Your task to perform on an android device: uninstall "HBO Max: Stream TV & Movies" Image 0: 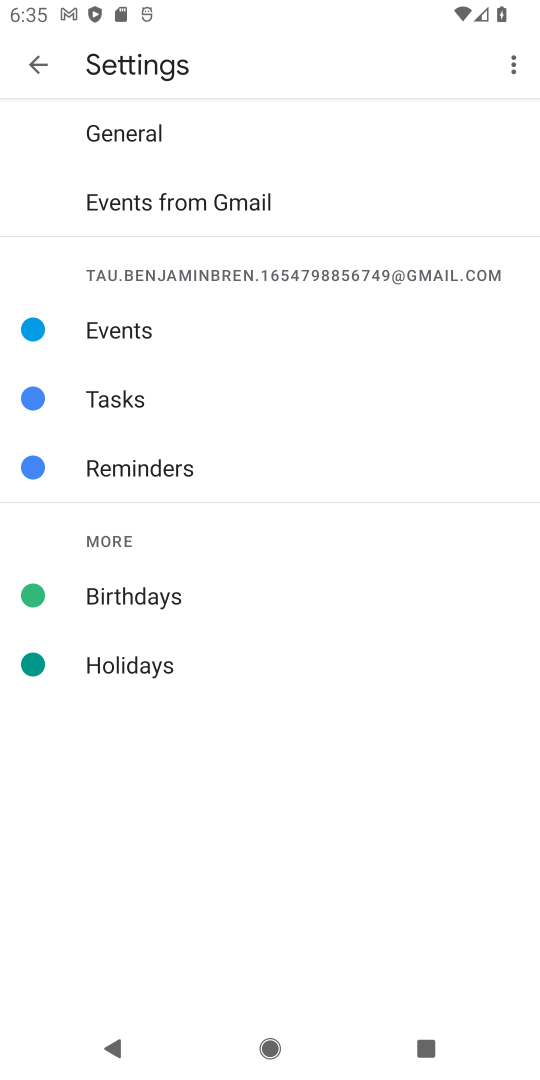
Step 0: drag from (321, 816) to (355, 428)
Your task to perform on an android device: uninstall "HBO Max: Stream TV & Movies" Image 1: 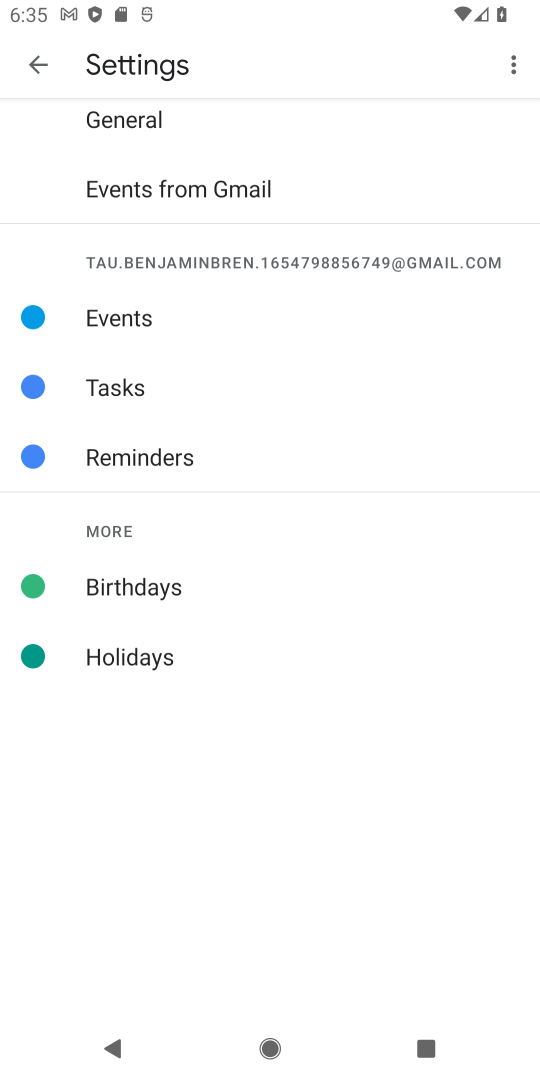
Step 1: drag from (306, 538) to (371, 781)
Your task to perform on an android device: uninstall "HBO Max: Stream TV & Movies" Image 2: 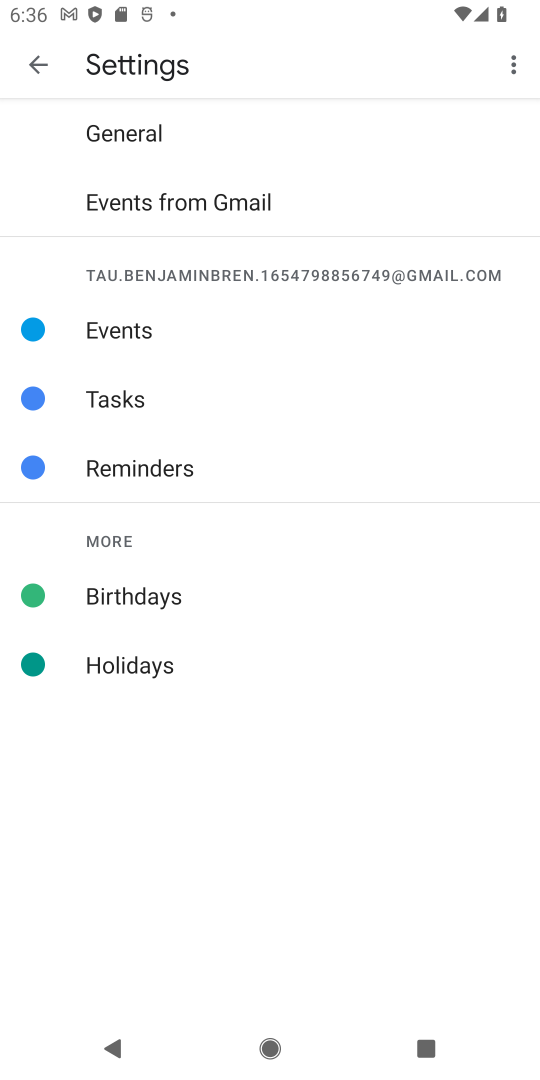
Step 2: press home button
Your task to perform on an android device: uninstall "HBO Max: Stream TV & Movies" Image 3: 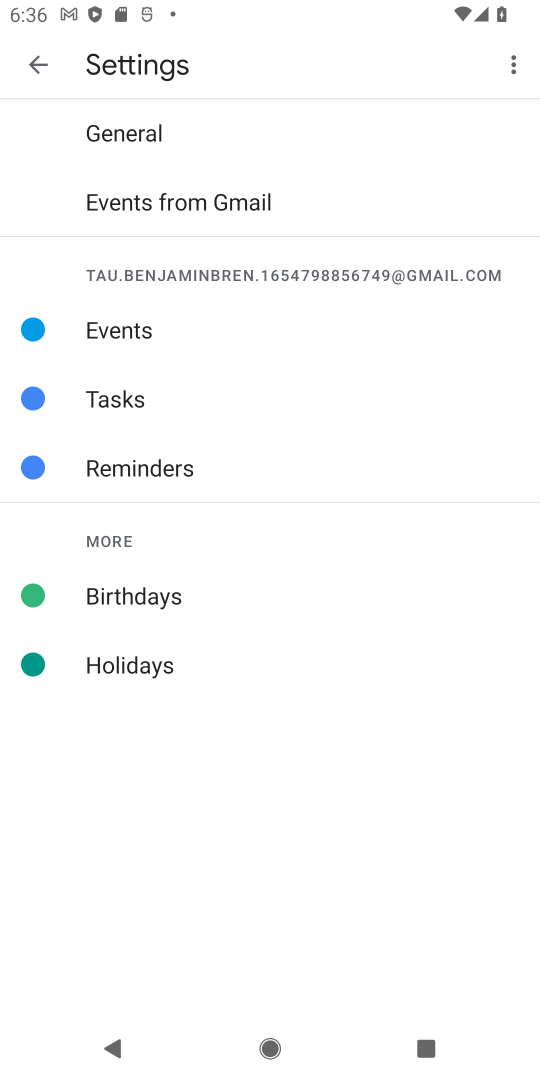
Step 3: press home button
Your task to perform on an android device: uninstall "HBO Max: Stream TV & Movies" Image 4: 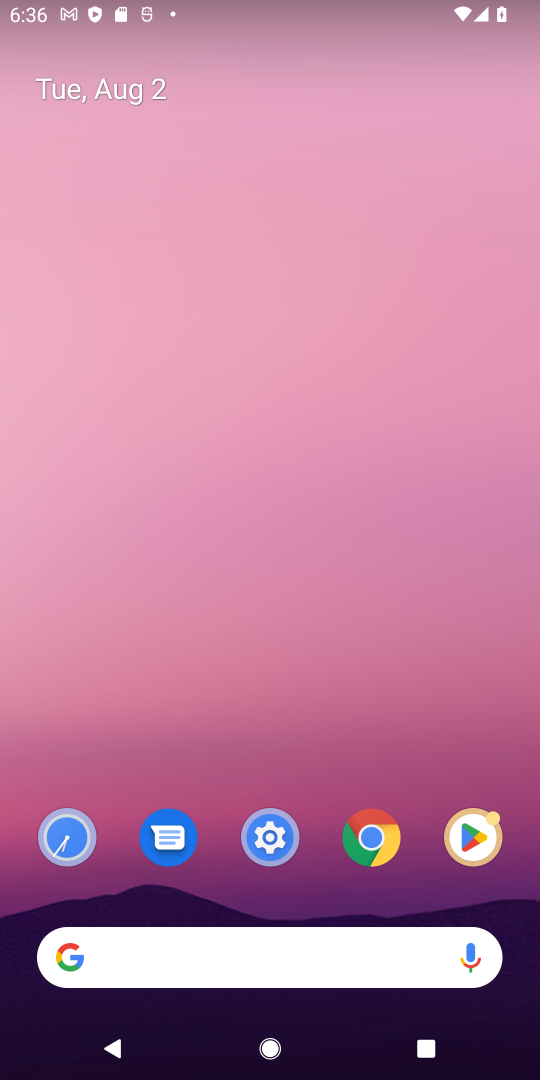
Step 4: drag from (227, 832) to (261, 198)
Your task to perform on an android device: uninstall "HBO Max: Stream TV & Movies" Image 5: 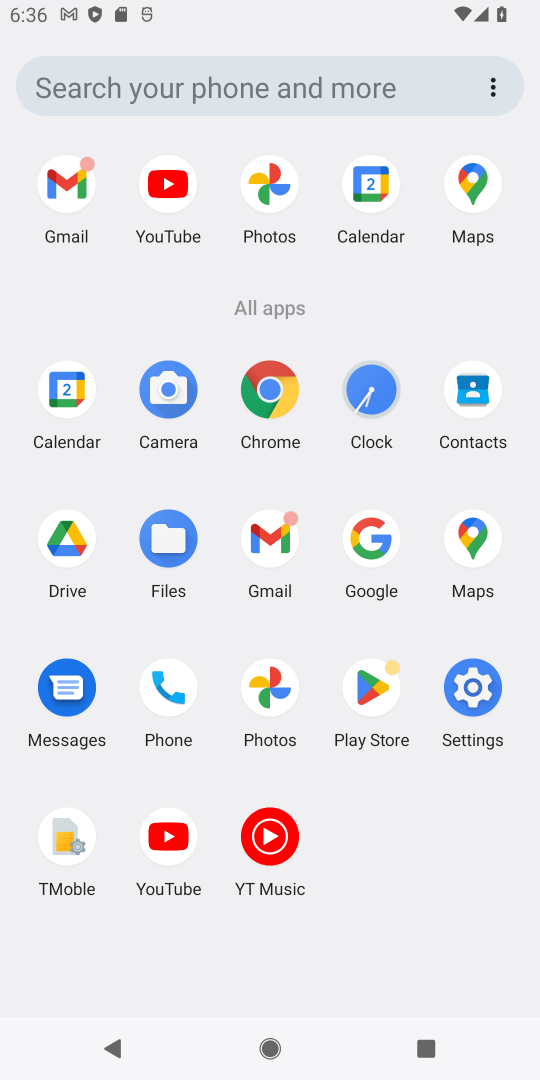
Step 5: click (371, 687)
Your task to perform on an android device: uninstall "HBO Max: Stream TV & Movies" Image 6: 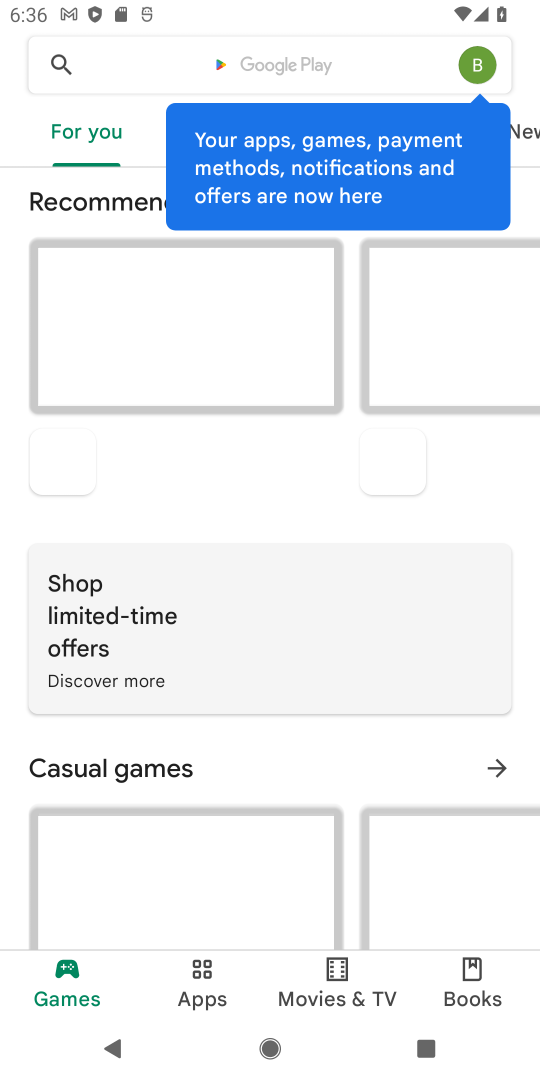
Step 6: click (213, 61)
Your task to perform on an android device: uninstall "HBO Max: Stream TV & Movies" Image 7: 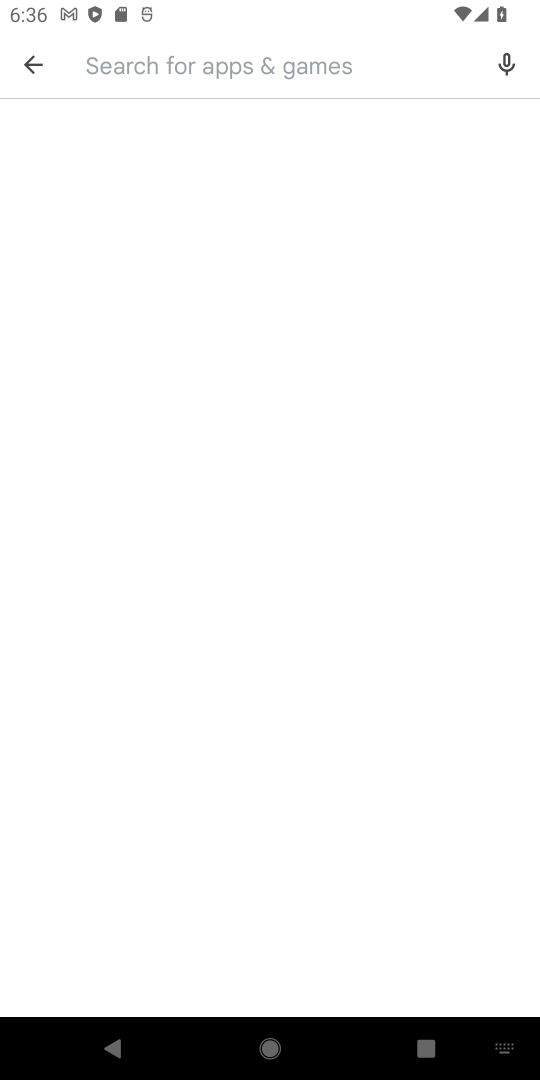
Step 7: click (245, 71)
Your task to perform on an android device: uninstall "HBO Max: Stream TV & Movies" Image 8: 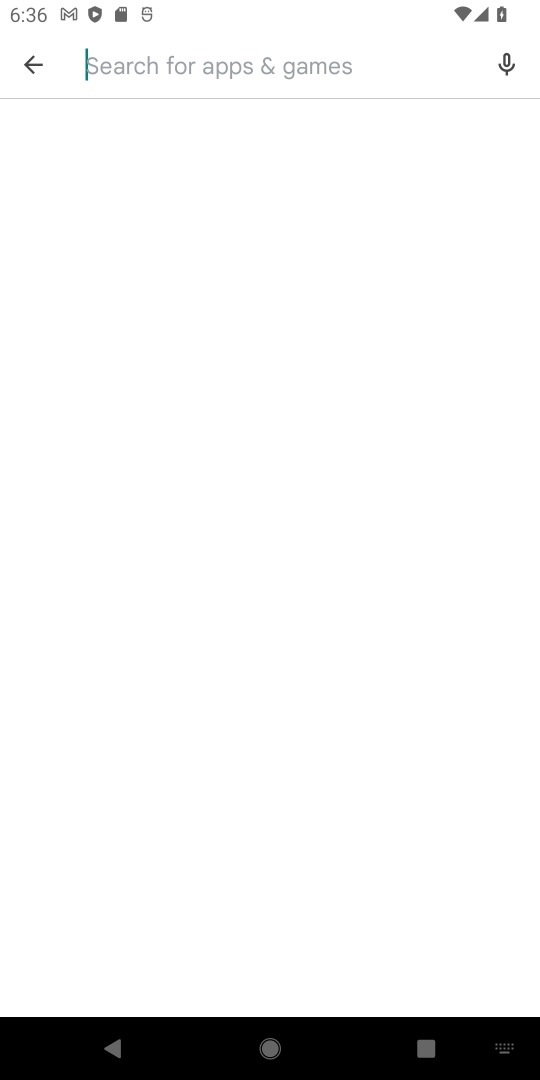
Step 8: type "HBO Max: Stream TV & Movies"
Your task to perform on an android device: uninstall "HBO Max: Stream TV & Movies" Image 9: 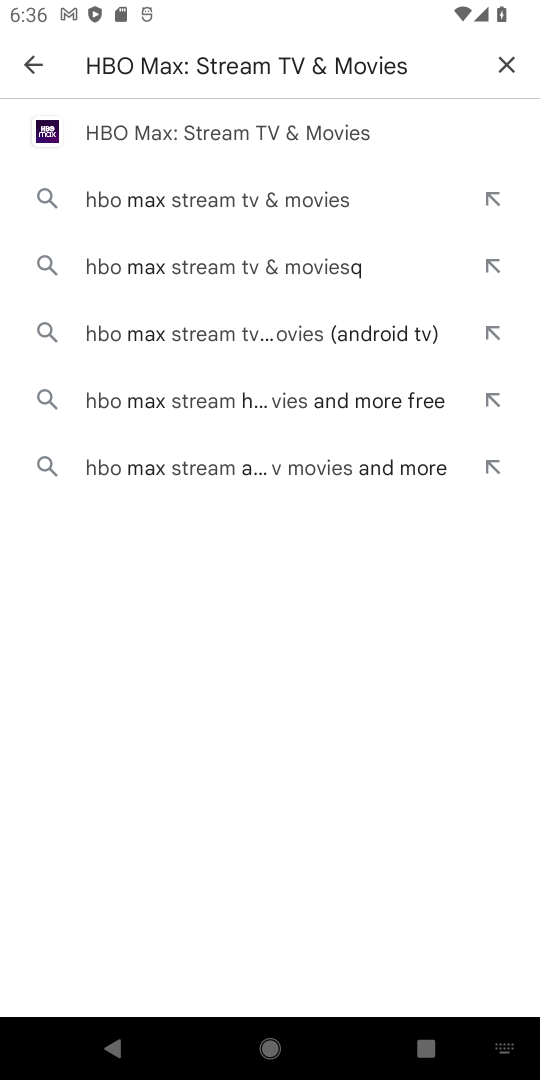
Step 9: click (221, 142)
Your task to perform on an android device: uninstall "HBO Max: Stream TV & Movies" Image 10: 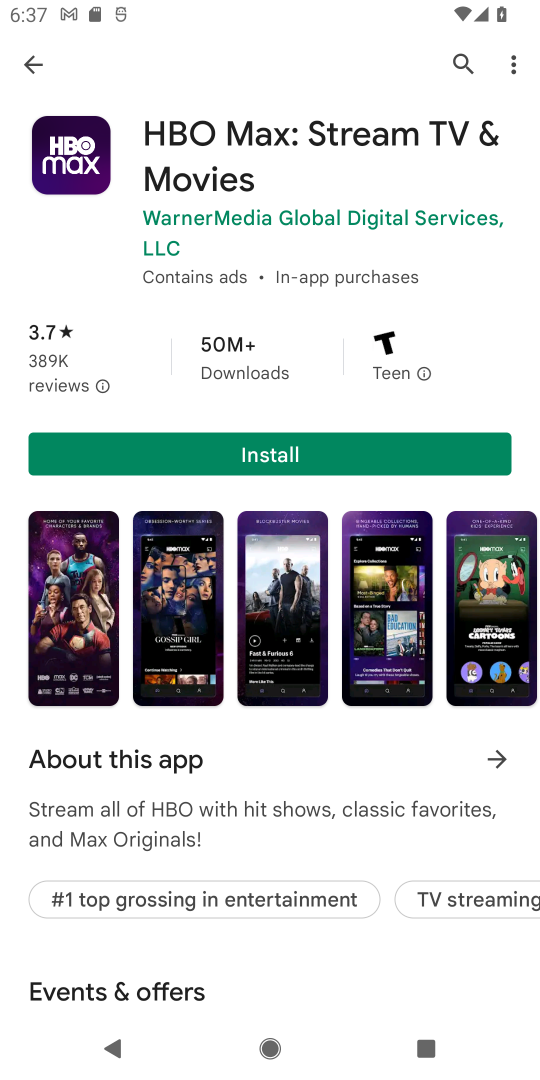
Step 10: task complete